Your task to perform on an android device: turn off priority inbox in the gmail app Image 0: 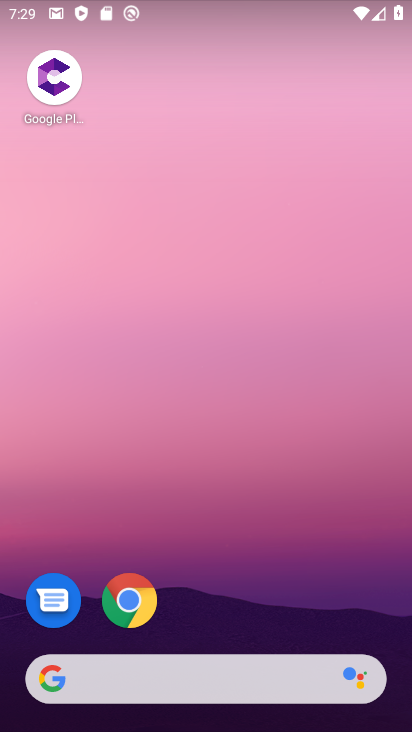
Step 0: drag from (94, 727) to (162, 4)
Your task to perform on an android device: turn off priority inbox in the gmail app Image 1: 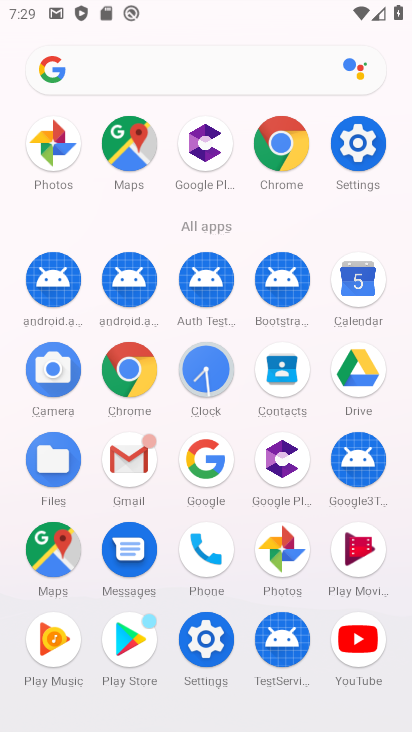
Step 1: click (116, 462)
Your task to perform on an android device: turn off priority inbox in the gmail app Image 2: 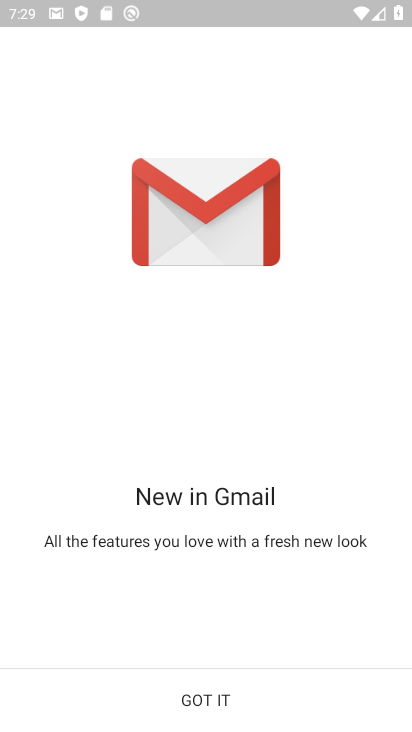
Step 2: click (255, 714)
Your task to perform on an android device: turn off priority inbox in the gmail app Image 3: 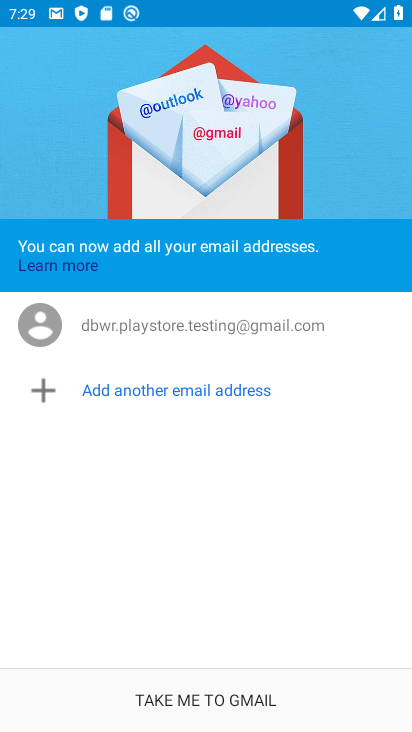
Step 3: click (180, 697)
Your task to perform on an android device: turn off priority inbox in the gmail app Image 4: 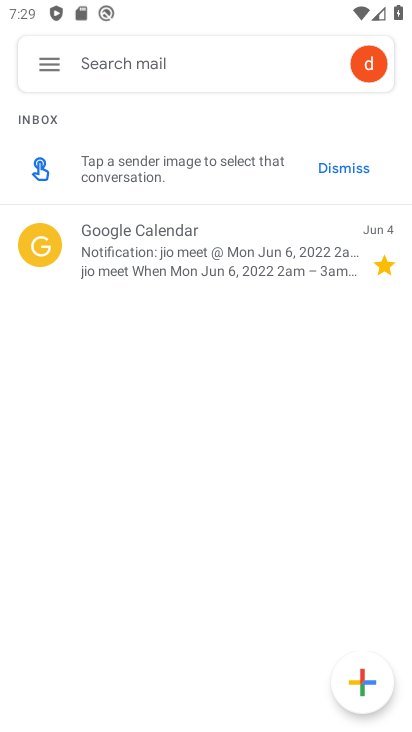
Step 4: click (39, 51)
Your task to perform on an android device: turn off priority inbox in the gmail app Image 5: 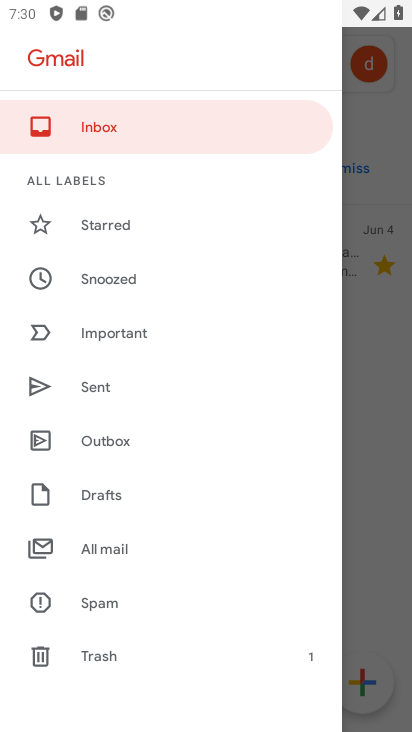
Step 5: drag from (196, 689) to (213, 270)
Your task to perform on an android device: turn off priority inbox in the gmail app Image 6: 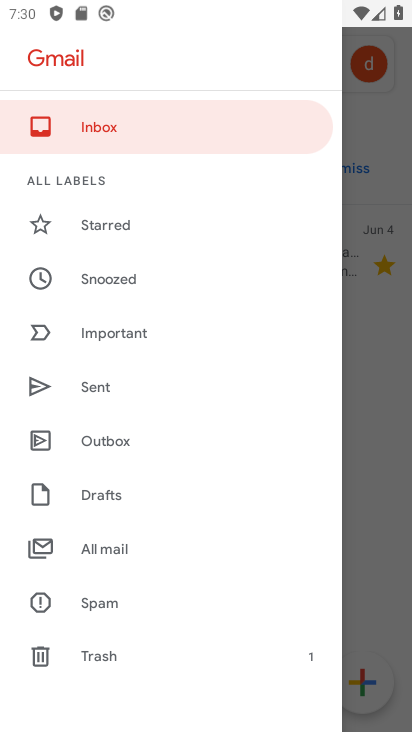
Step 6: drag from (1, 681) to (7, 375)
Your task to perform on an android device: turn off priority inbox in the gmail app Image 7: 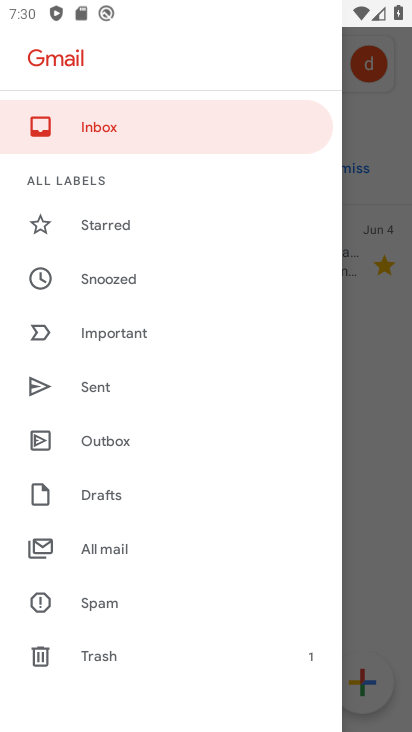
Step 7: drag from (211, 683) to (225, 367)
Your task to perform on an android device: turn off priority inbox in the gmail app Image 8: 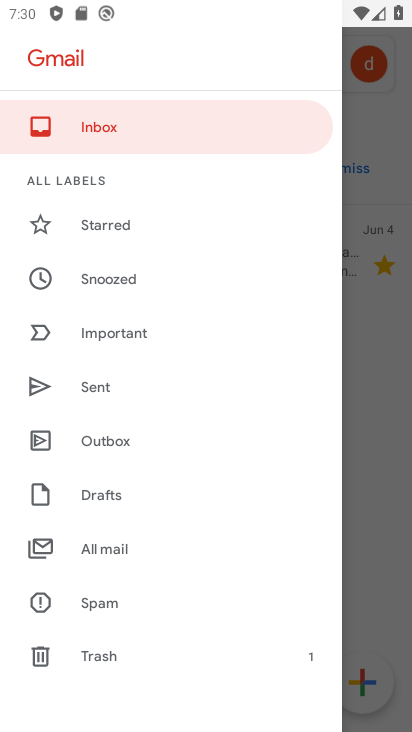
Step 8: drag from (271, 711) to (277, 286)
Your task to perform on an android device: turn off priority inbox in the gmail app Image 9: 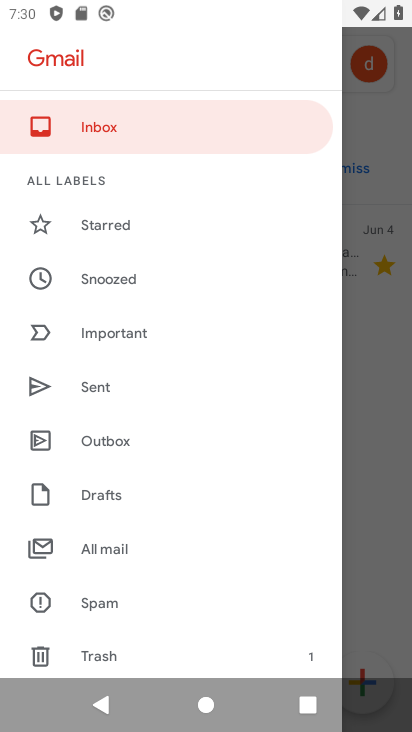
Step 9: drag from (214, 612) to (252, 194)
Your task to perform on an android device: turn off priority inbox in the gmail app Image 10: 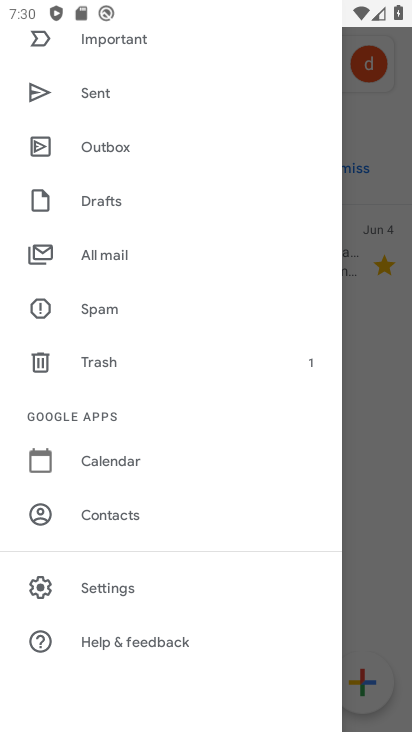
Step 10: click (121, 597)
Your task to perform on an android device: turn off priority inbox in the gmail app Image 11: 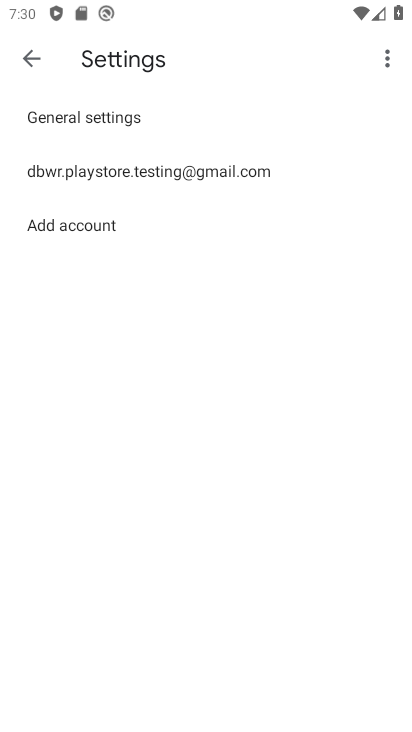
Step 11: click (109, 166)
Your task to perform on an android device: turn off priority inbox in the gmail app Image 12: 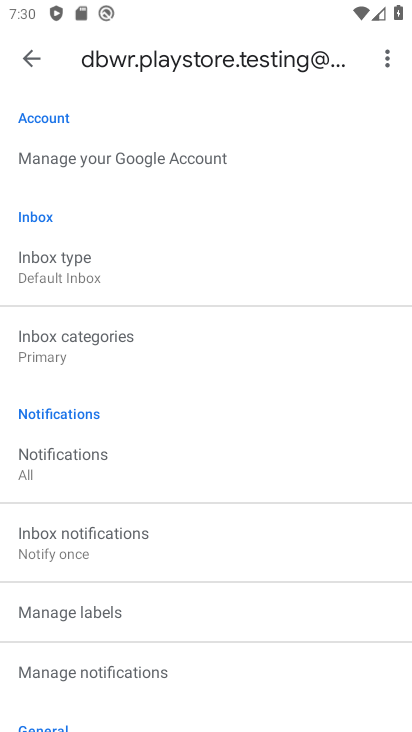
Step 12: click (87, 270)
Your task to perform on an android device: turn off priority inbox in the gmail app Image 13: 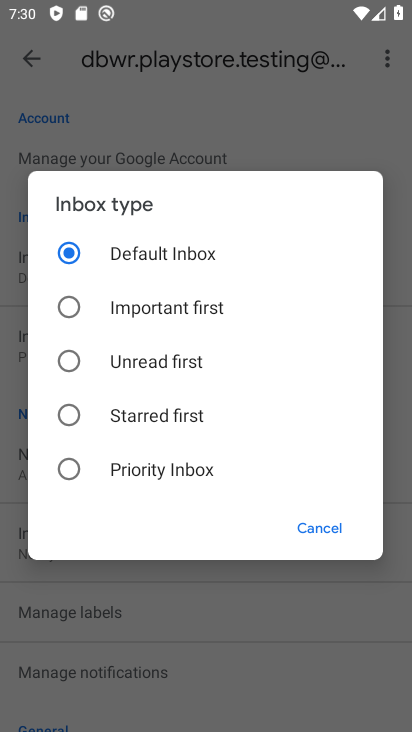
Step 13: task complete